Your task to perform on an android device: Open the phone app and click the voicemail tab. Image 0: 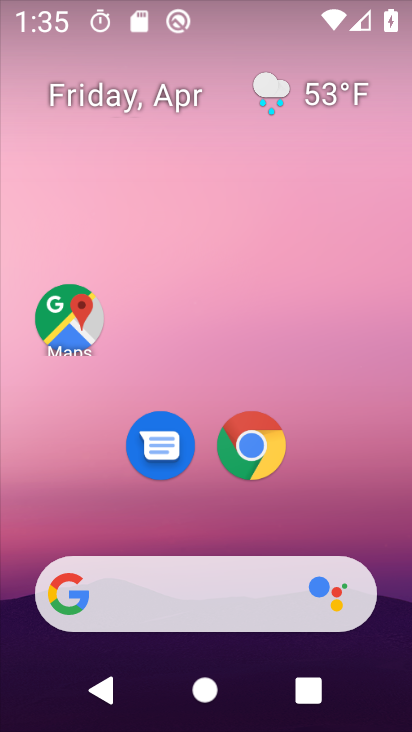
Step 0: drag from (356, 513) to (347, 134)
Your task to perform on an android device: Open the phone app and click the voicemail tab. Image 1: 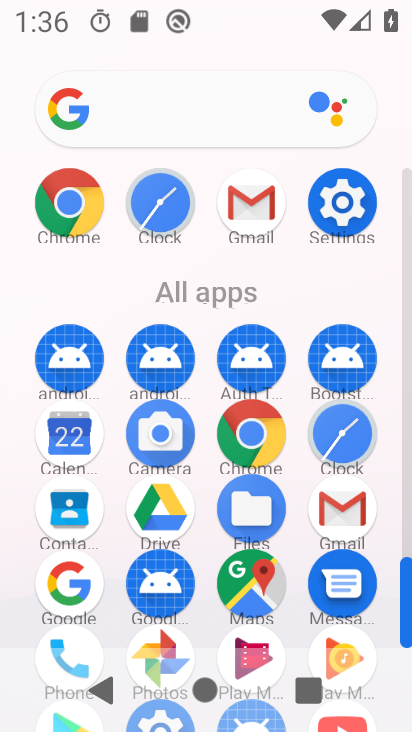
Step 1: drag from (385, 498) to (391, 237)
Your task to perform on an android device: Open the phone app and click the voicemail tab. Image 2: 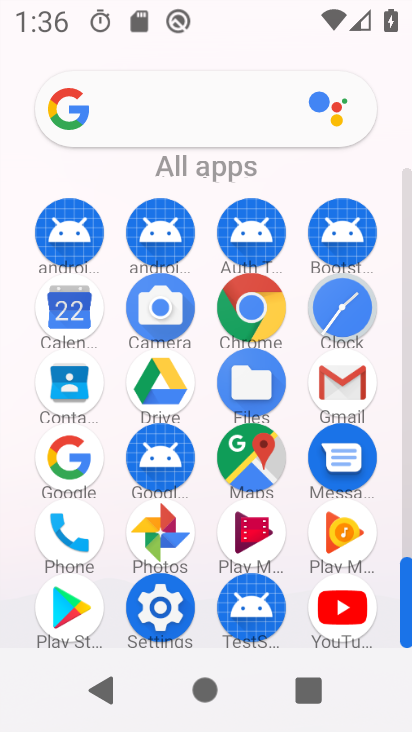
Step 2: click (74, 535)
Your task to perform on an android device: Open the phone app and click the voicemail tab. Image 3: 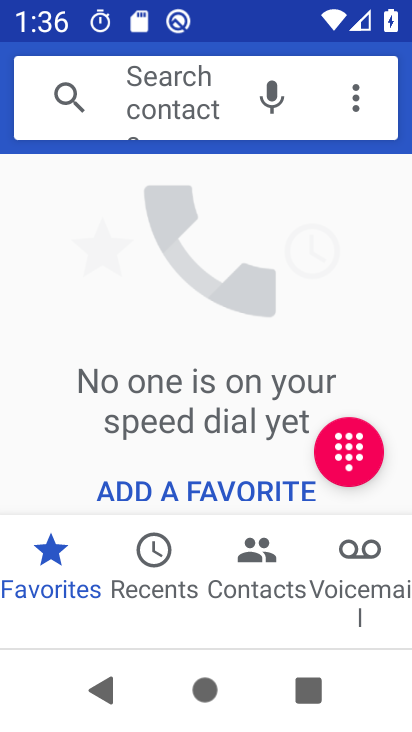
Step 3: click (358, 578)
Your task to perform on an android device: Open the phone app and click the voicemail tab. Image 4: 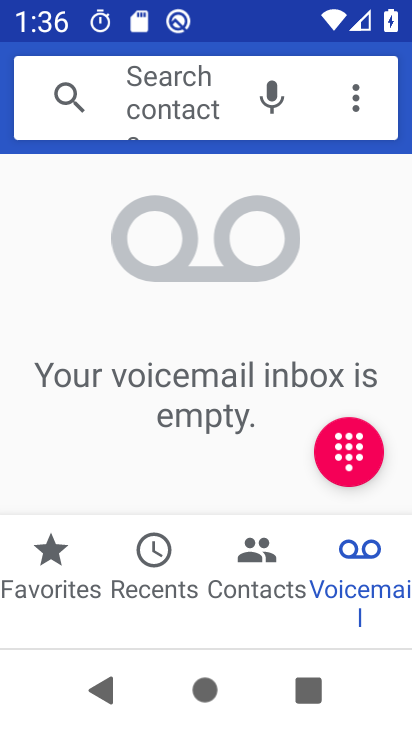
Step 4: task complete